Your task to perform on an android device: turn notification dots on Image 0: 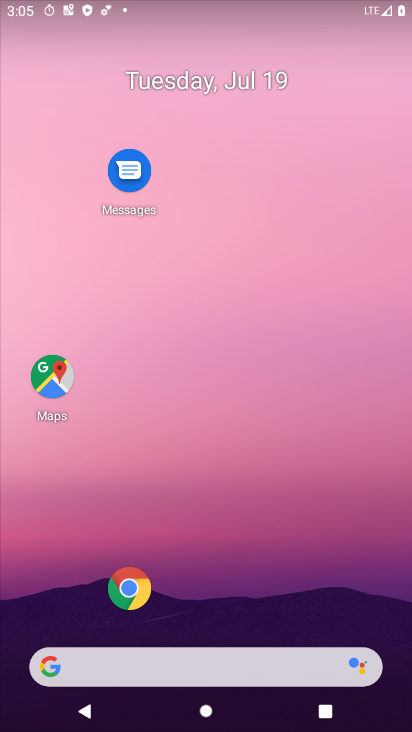
Step 0: drag from (45, 650) to (200, 250)
Your task to perform on an android device: turn notification dots on Image 1: 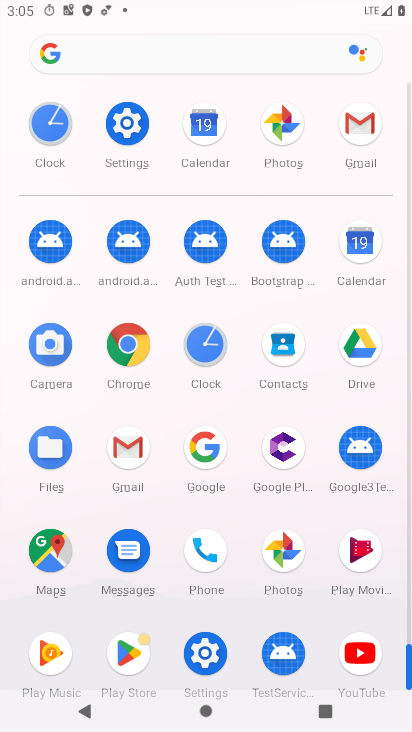
Step 1: click (211, 648)
Your task to perform on an android device: turn notification dots on Image 2: 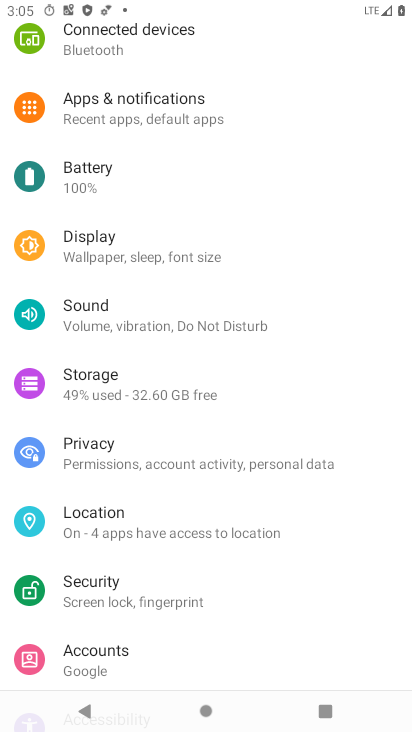
Step 2: click (174, 114)
Your task to perform on an android device: turn notification dots on Image 3: 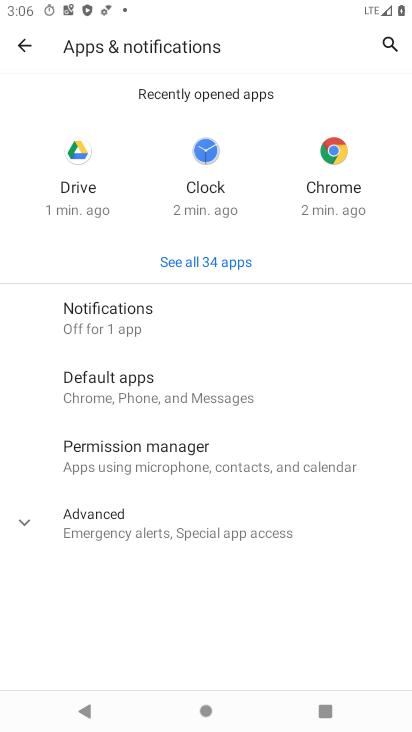
Step 3: click (134, 314)
Your task to perform on an android device: turn notification dots on Image 4: 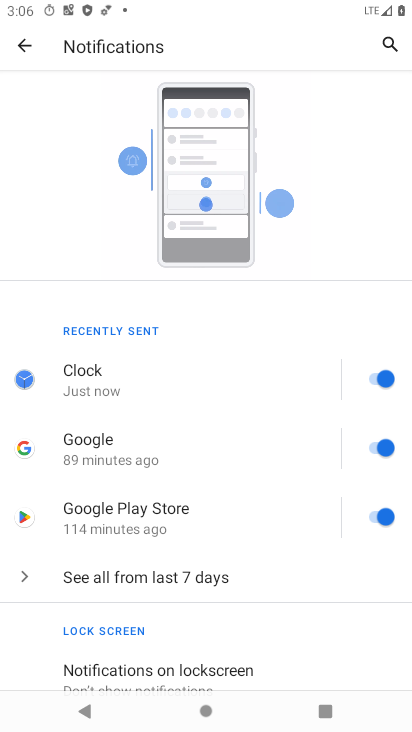
Step 4: drag from (205, 625) to (254, 355)
Your task to perform on an android device: turn notification dots on Image 5: 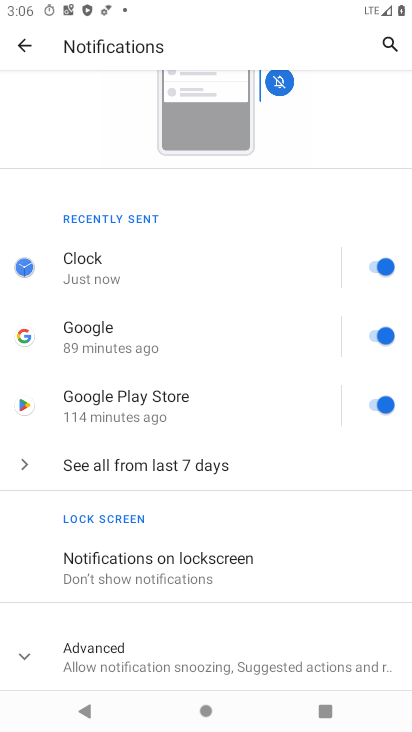
Step 5: click (166, 671)
Your task to perform on an android device: turn notification dots on Image 6: 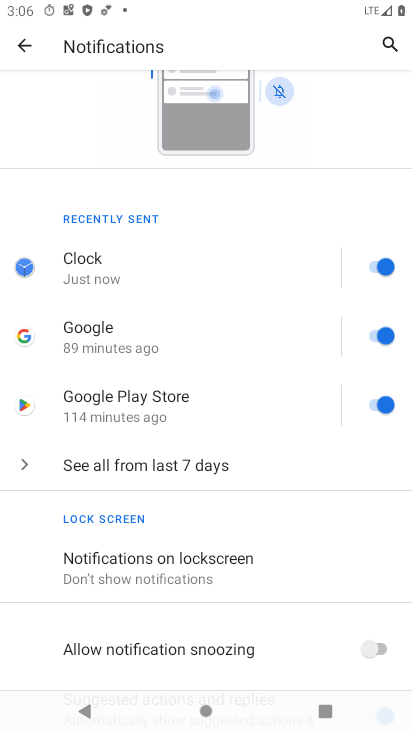
Step 6: task complete